Your task to perform on an android device: set the timer Image 0: 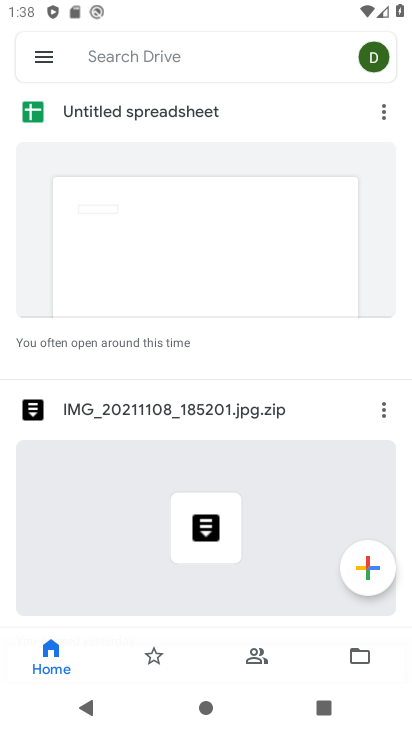
Step 0: press home button
Your task to perform on an android device: set the timer Image 1: 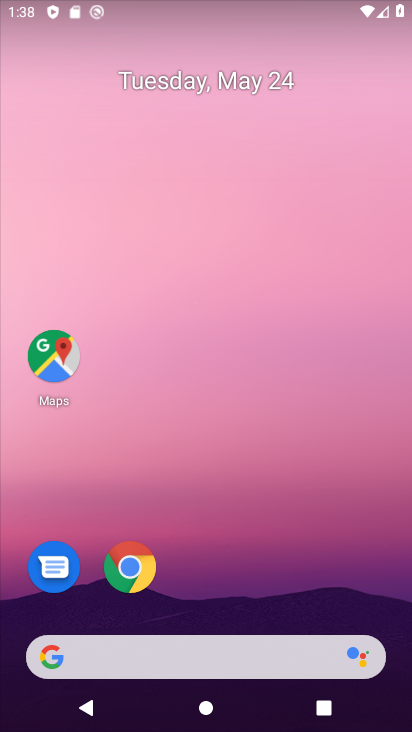
Step 1: drag from (234, 596) to (272, 280)
Your task to perform on an android device: set the timer Image 2: 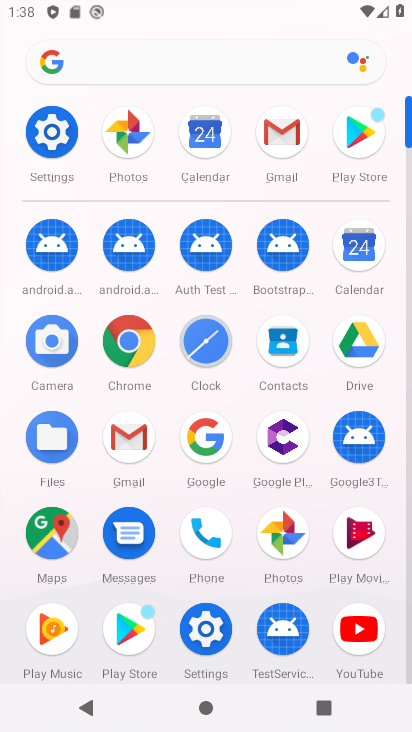
Step 2: click (207, 352)
Your task to perform on an android device: set the timer Image 3: 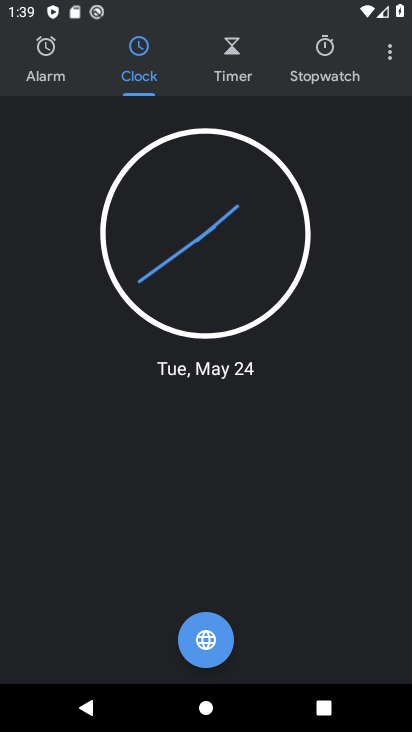
Step 3: click (238, 80)
Your task to perform on an android device: set the timer Image 4: 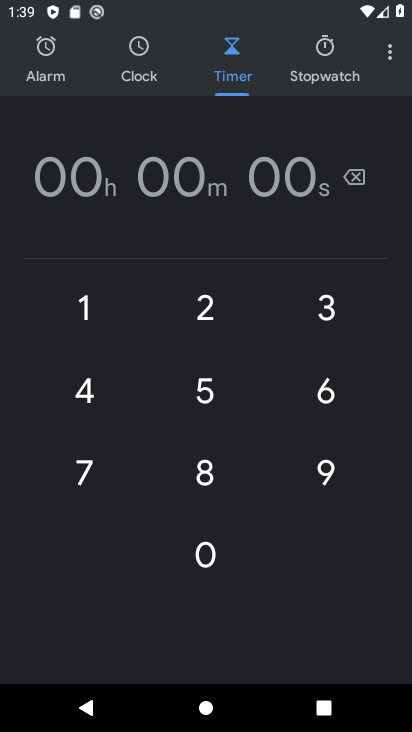
Step 4: click (92, 484)
Your task to perform on an android device: set the timer Image 5: 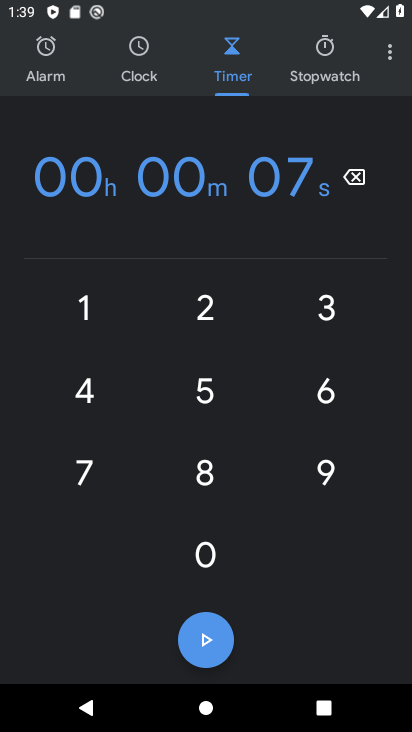
Step 5: click (91, 381)
Your task to perform on an android device: set the timer Image 6: 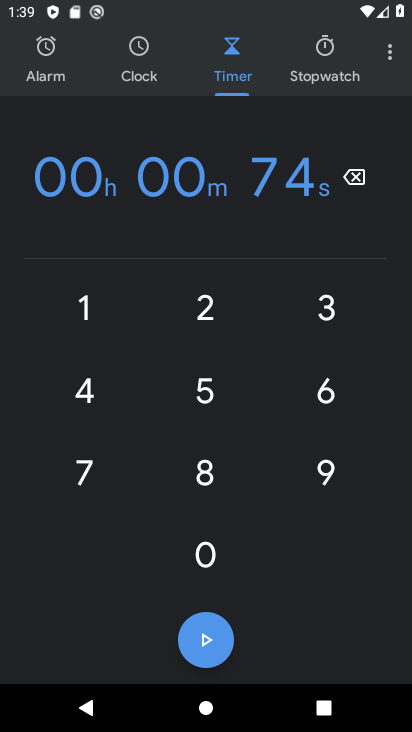
Step 6: click (324, 477)
Your task to perform on an android device: set the timer Image 7: 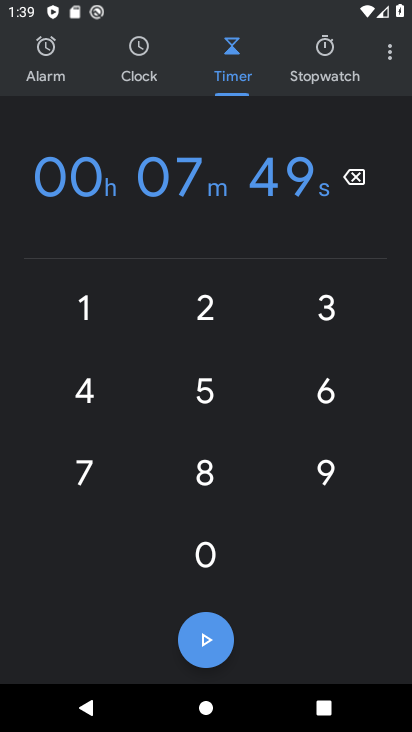
Step 7: click (215, 640)
Your task to perform on an android device: set the timer Image 8: 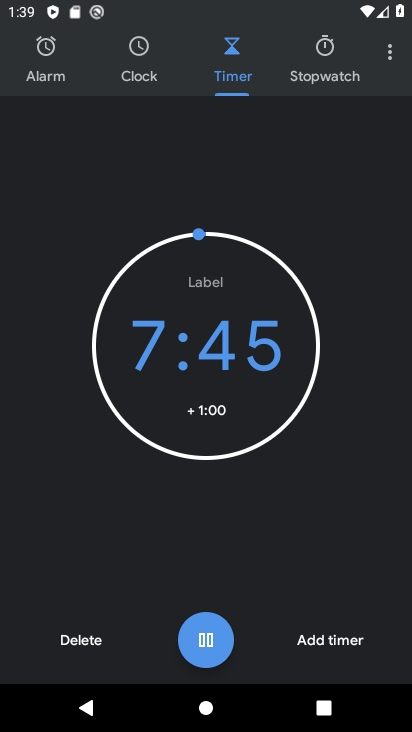
Step 8: task complete